Your task to perform on an android device: Check the news Image 0: 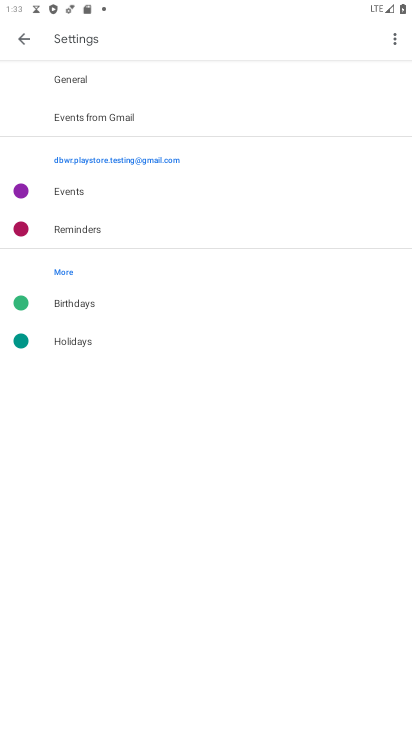
Step 0: press home button
Your task to perform on an android device: Check the news Image 1: 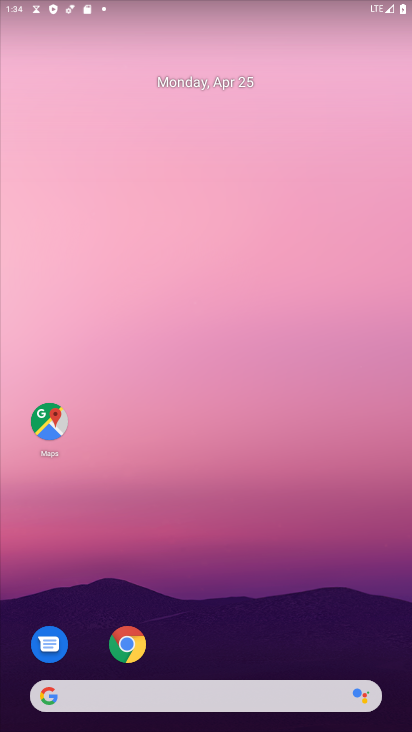
Step 1: task complete